Your task to perform on an android device: Open Chrome and go to settings Image 0: 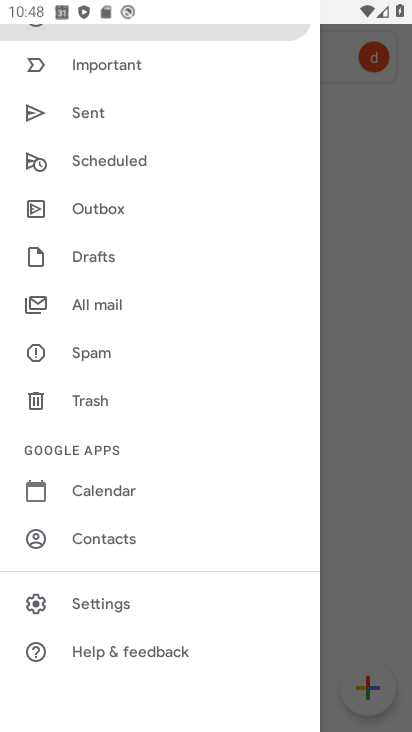
Step 0: press home button
Your task to perform on an android device: Open Chrome and go to settings Image 1: 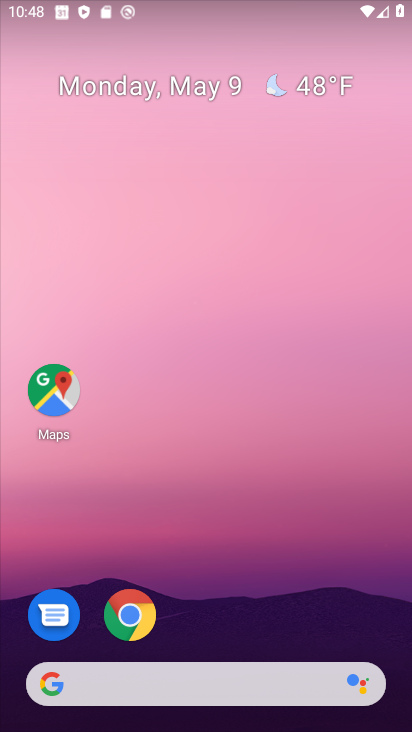
Step 1: click (133, 619)
Your task to perform on an android device: Open Chrome and go to settings Image 2: 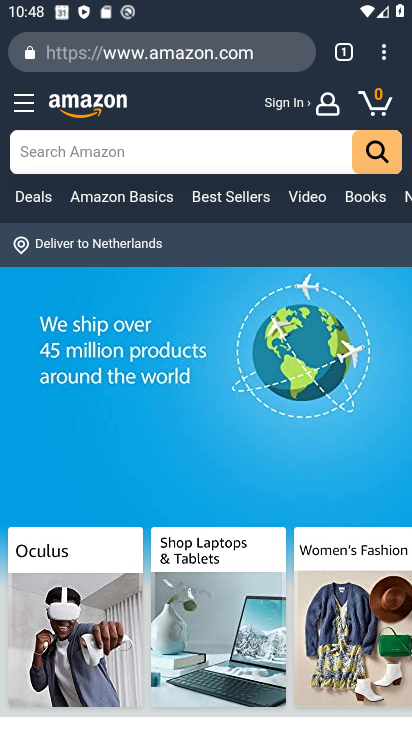
Step 2: click (383, 55)
Your task to perform on an android device: Open Chrome and go to settings Image 3: 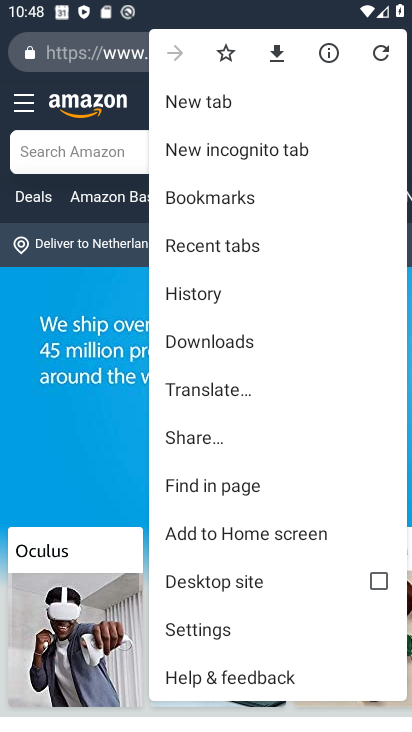
Step 3: click (226, 618)
Your task to perform on an android device: Open Chrome and go to settings Image 4: 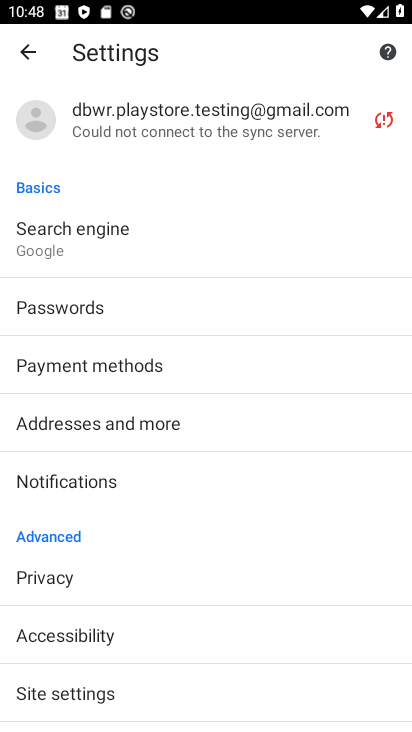
Step 4: task complete